Your task to perform on an android device: Go to Reddit.com Image 0: 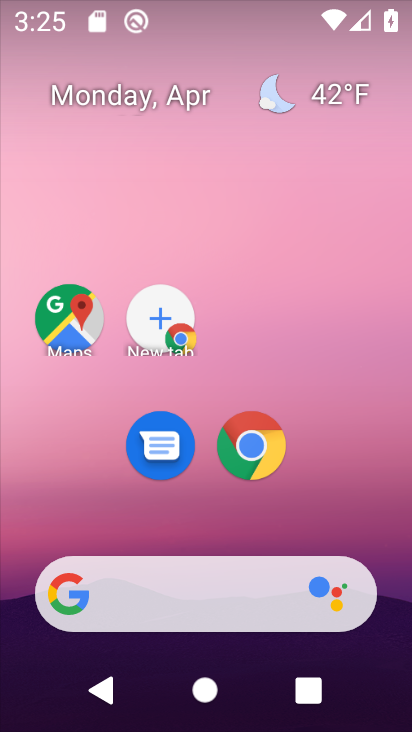
Step 0: press home button
Your task to perform on an android device: Go to Reddit.com Image 1: 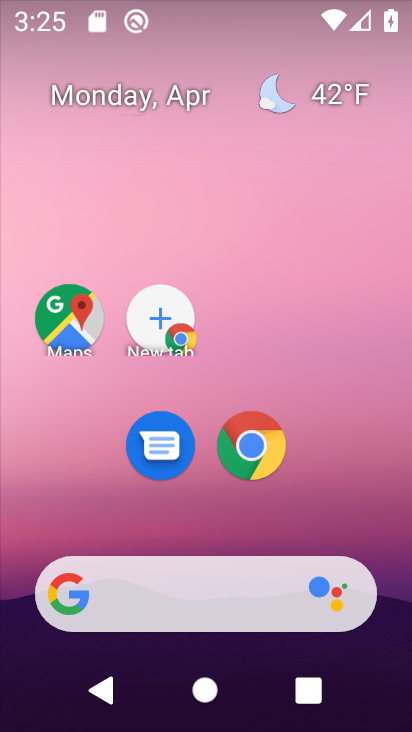
Step 1: click (249, 445)
Your task to perform on an android device: Go to Reddit.com Image 2: 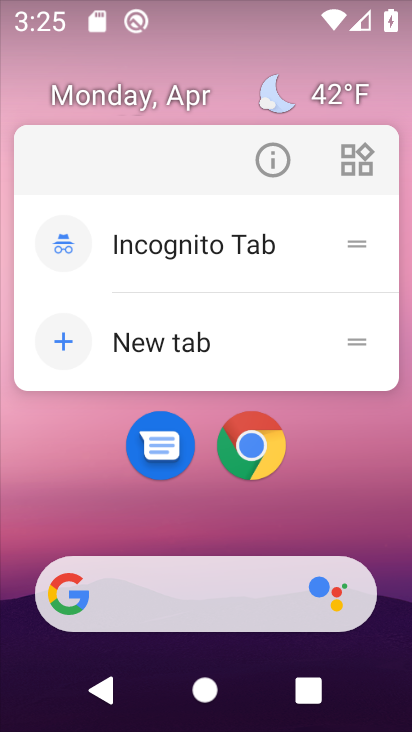
Step 2: click (248, 437)
Your task to perform on an android device: Go to Reddit.com Image 3: 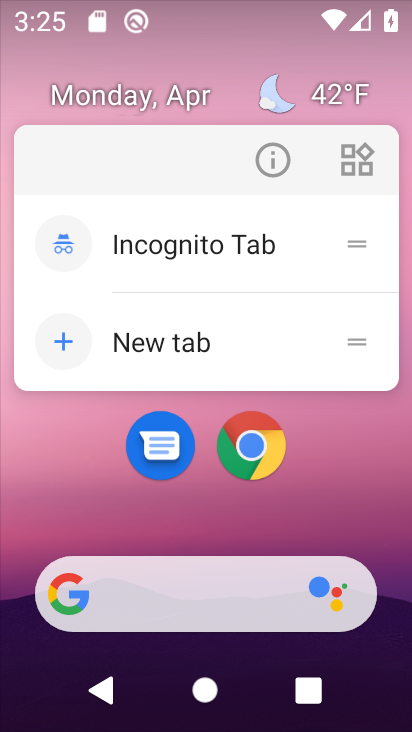
Step 3: click (249, 441)
Your task to perform on an android device: Go to Reddit.com Image 4: 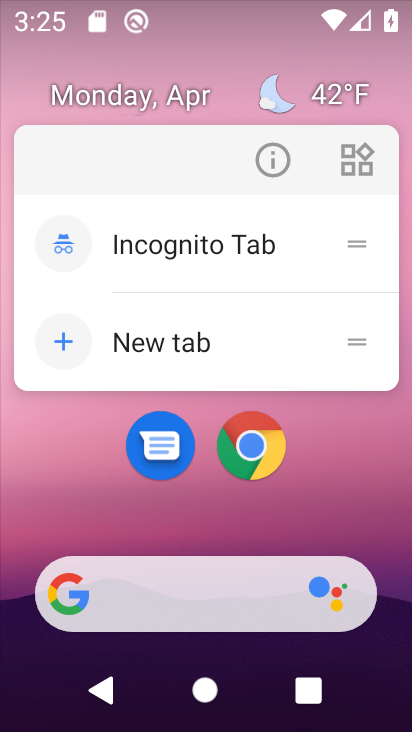
Step 4: click (359, 467)
Your task to perform on an android device: Go to Reddit.com Image 5: 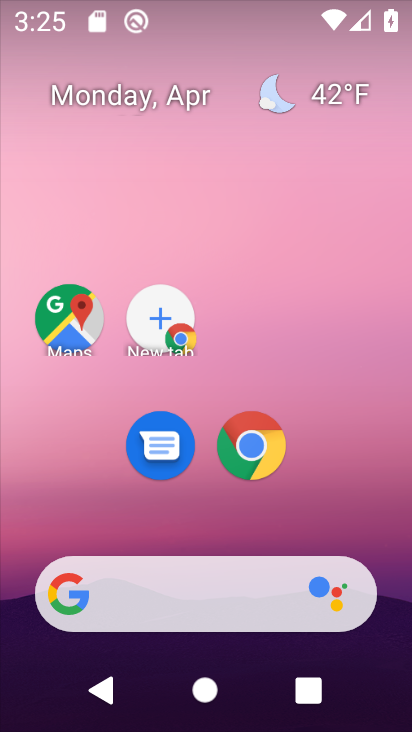
Step 5: click (260, 442)
Your task to perform on an android device: Go to Reddit.com Image 6: 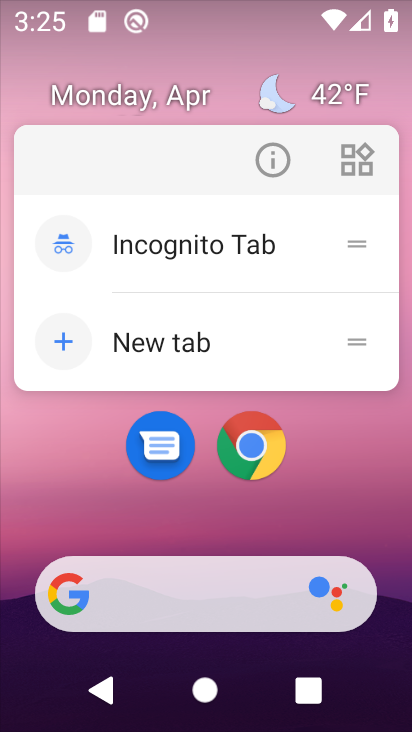
Step 6: click (307, 446)
Your task to perform on an android device: Go to Reddit.com Image 7: 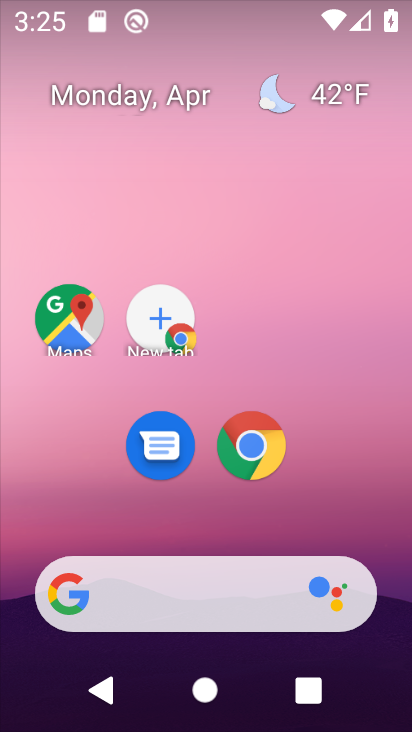
Step 7: click (249, 441)
Your task to perform on an android device: Go to Reddit.com Image 8: 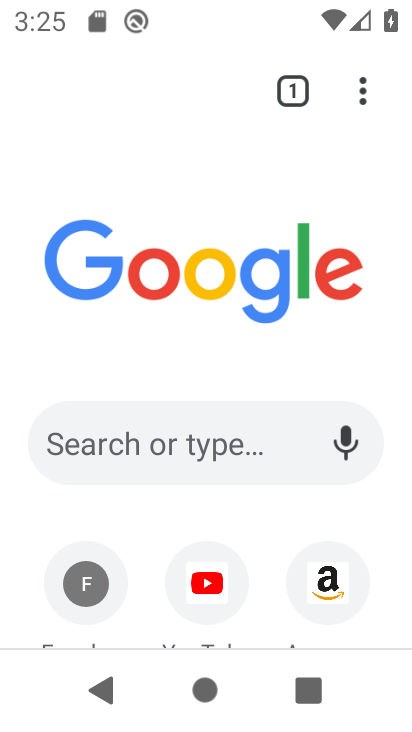
Step 8: drag from (258, 510) to (274, 174)
Your task to perform on an android device: Go to Reddit.com Image 9: 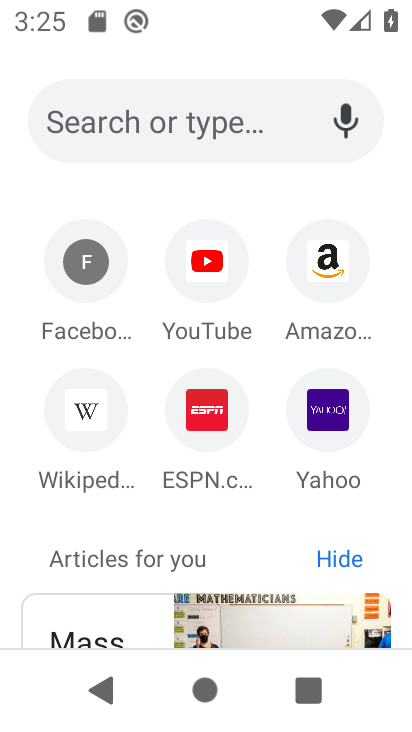
Step 9: click (155, 127)
Your task to perform on an android device: Go to Reddit.com Image 10: 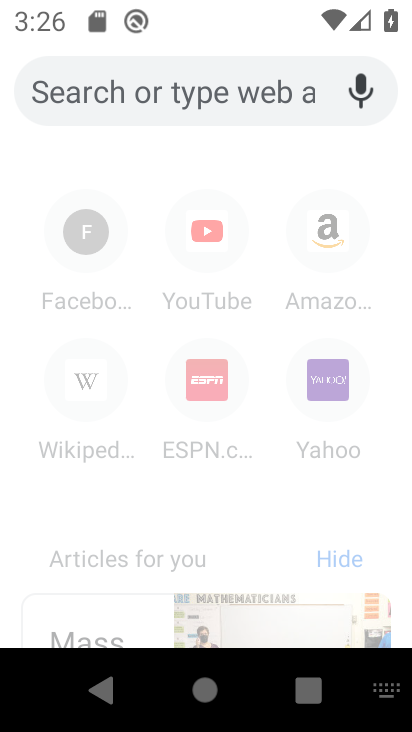
Step 10: type "reddit.com"
Your task to perform on an android device: Go to Reddit.com Image 11: 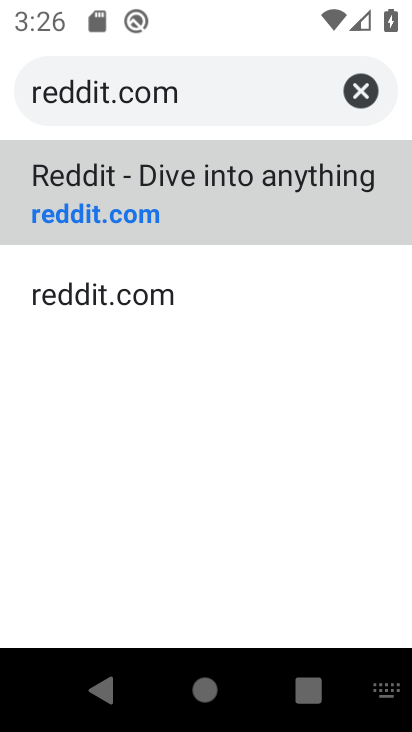
Step 11: click (155, 194)
Your task to perform on an android device: Go to Reddit.com Image 12: 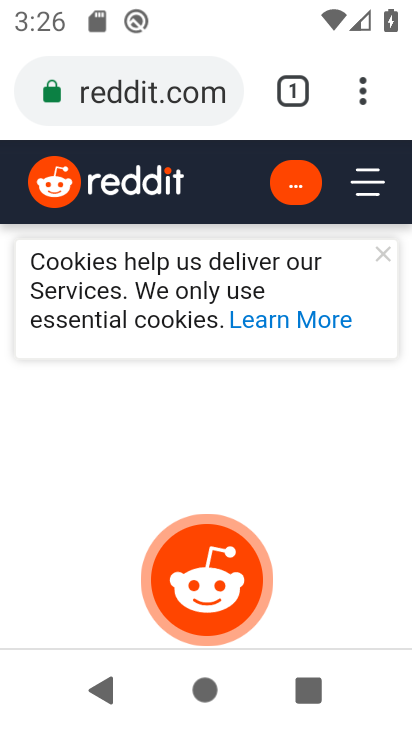
Step 12: drag from (285, 545) to (253, 255)
Your task to perform on an android device: Go to Reddit.com Image 13: 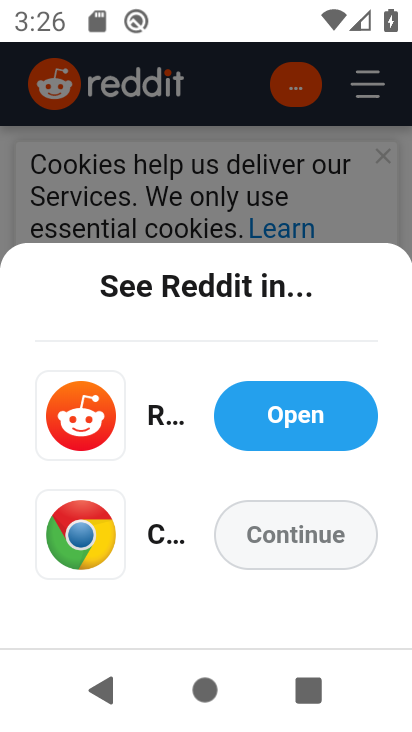
Step 13: click (302, 533)
Your task to perform on an android device: Go to Reddit.com Image 14: 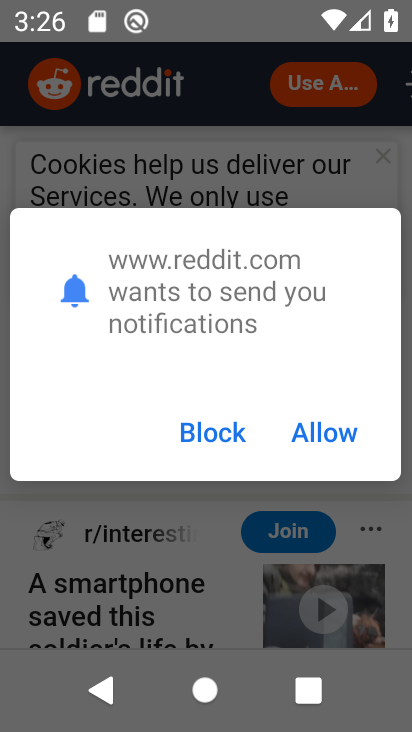
Step 14: click (206, 436)
Your task to perform on an android device: Go to Reddit.com Image 15: 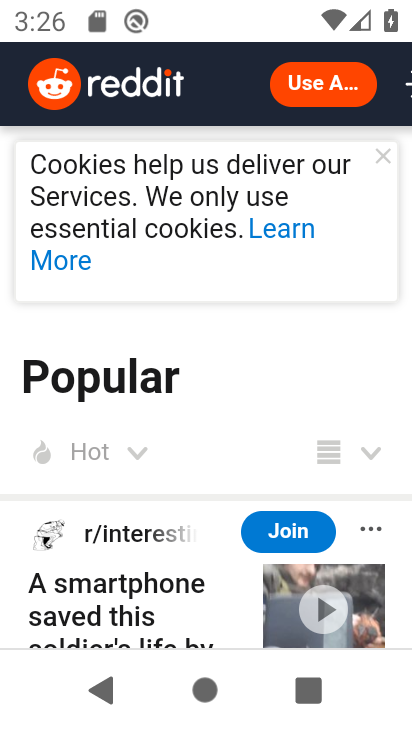
Step 15: task complete